Your task to perform on an android device: open app "Firefox Browser" Image 0: 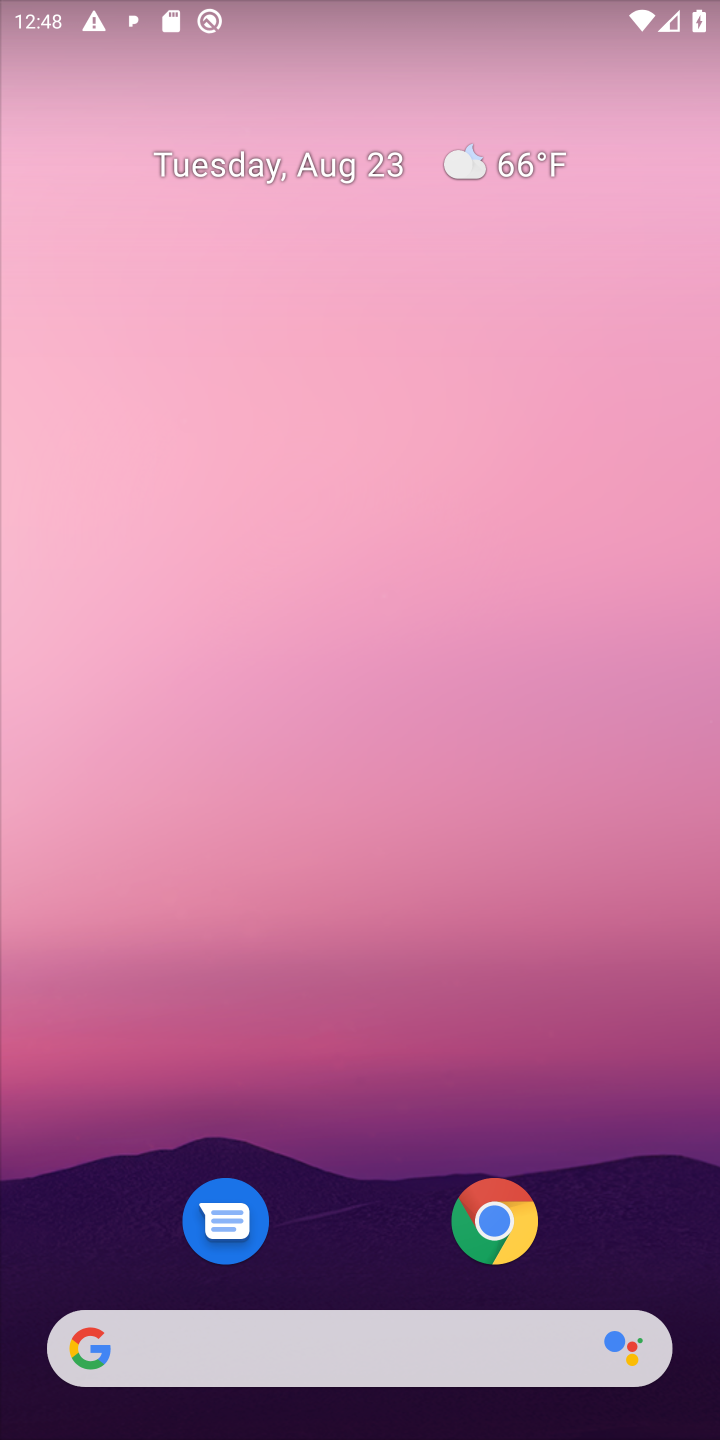
Step 0: drag from (324, 1255) to (525, 122)
Your task to perform on an android device: open app "Firefox Browser" Image 1: 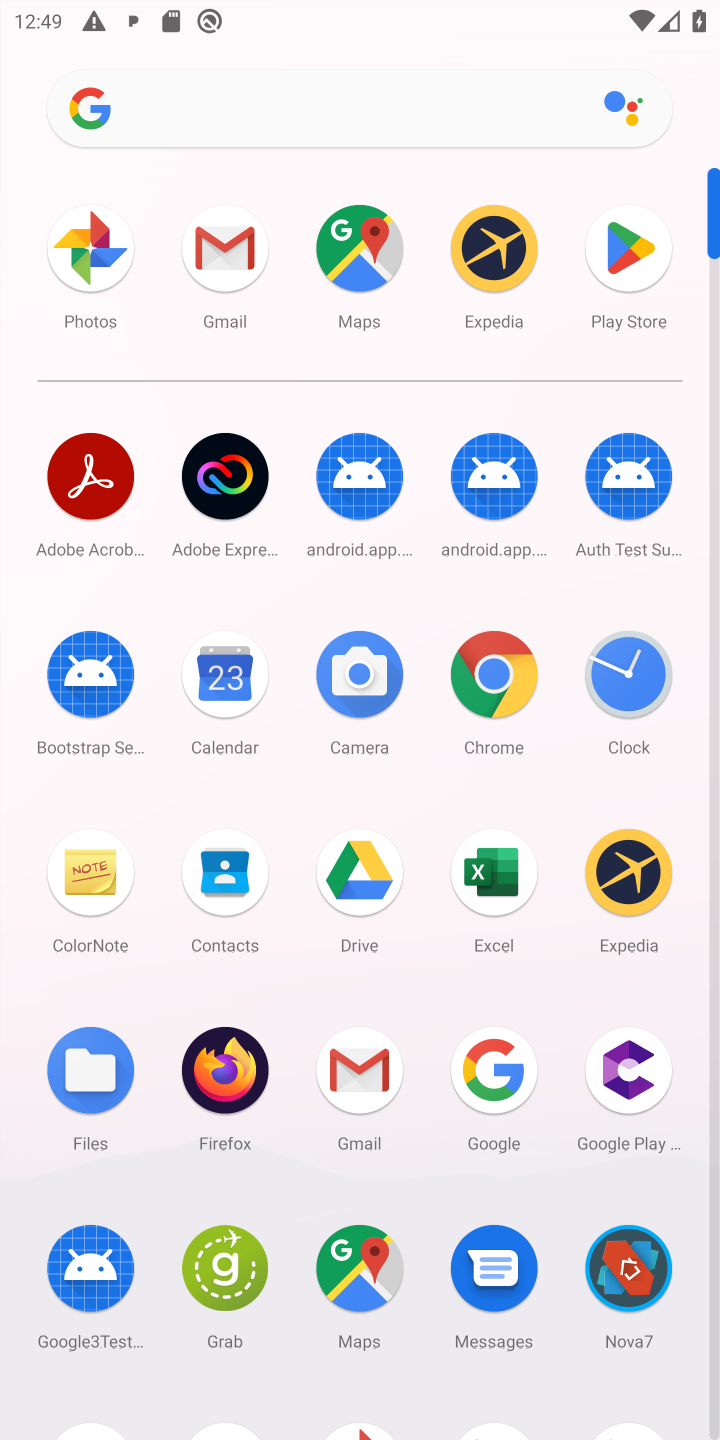
Step 1: click (650, 245)
Your task to perform on an android device: open app "Firefox Browser" Image 2: 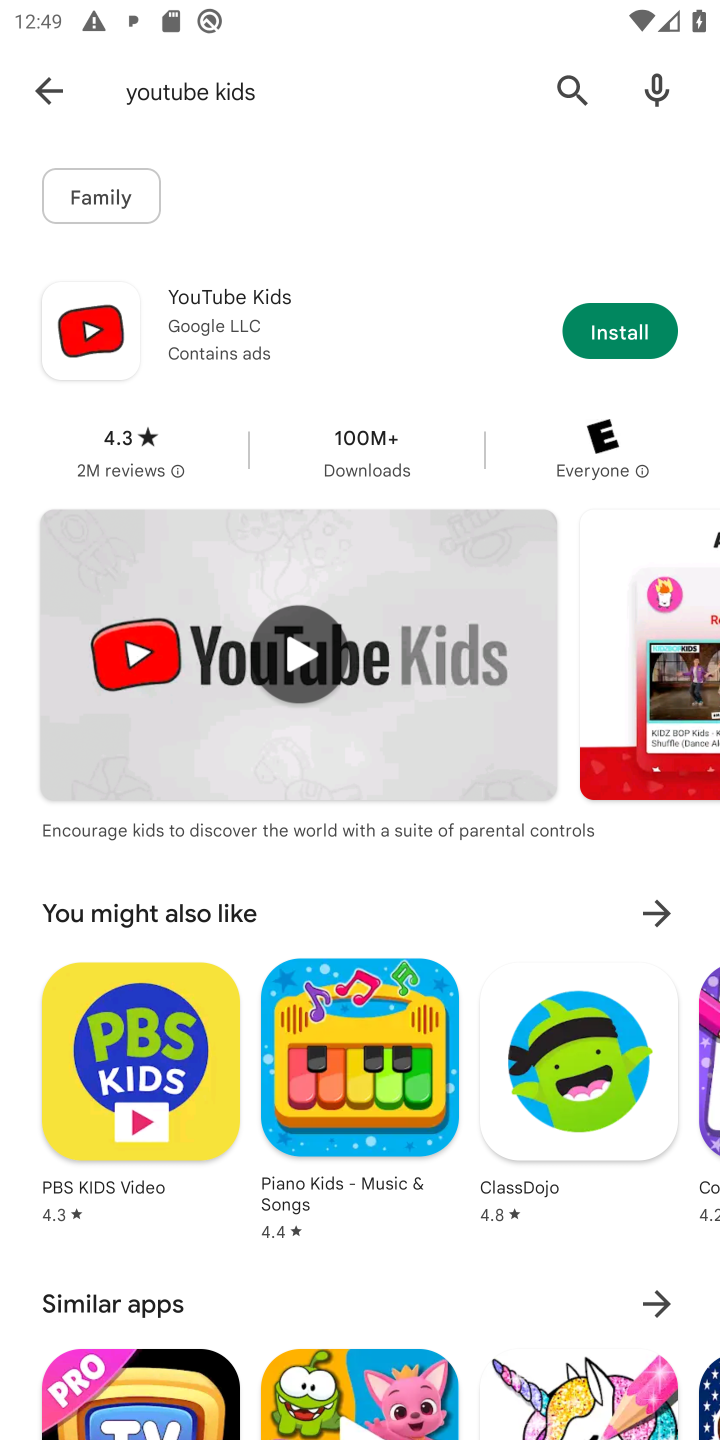
Step 2: click (554, 73)
Your task to perform on an android device: open app "Firefox Browser" Image 3: 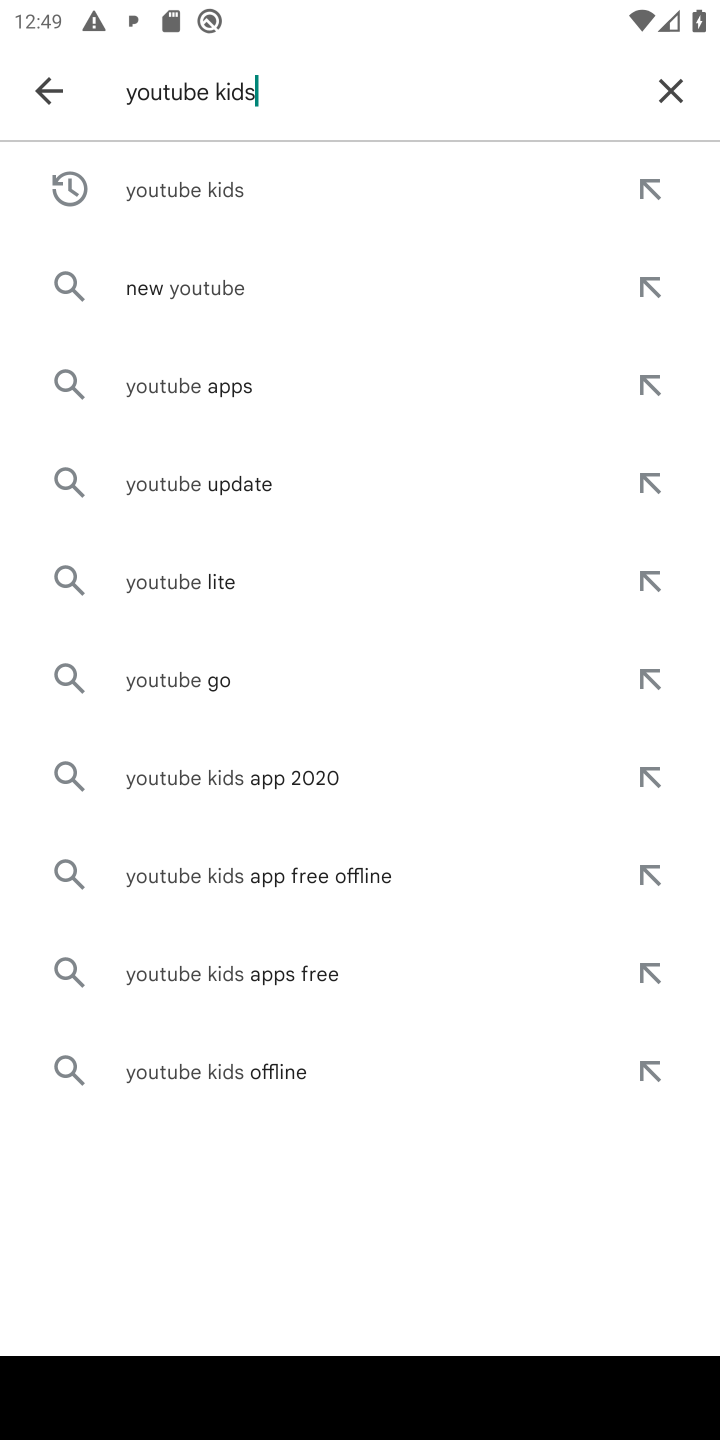
Step 3: click (670, 80)
Your task to perform on an android device: open app "Firefox Browser" Image 4: 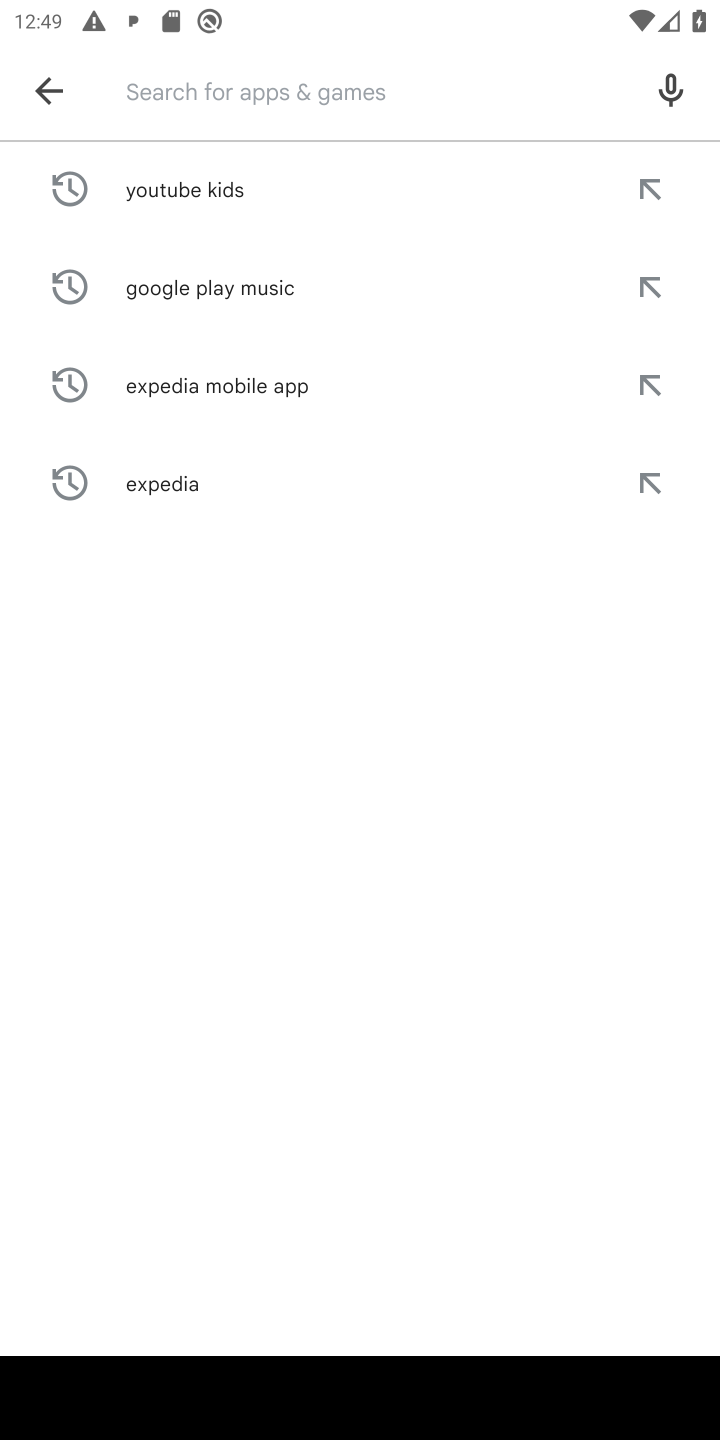
Step 4: click (233, 87)
Your task to perform on an android device: open app "Firefox Browser" Image 5: 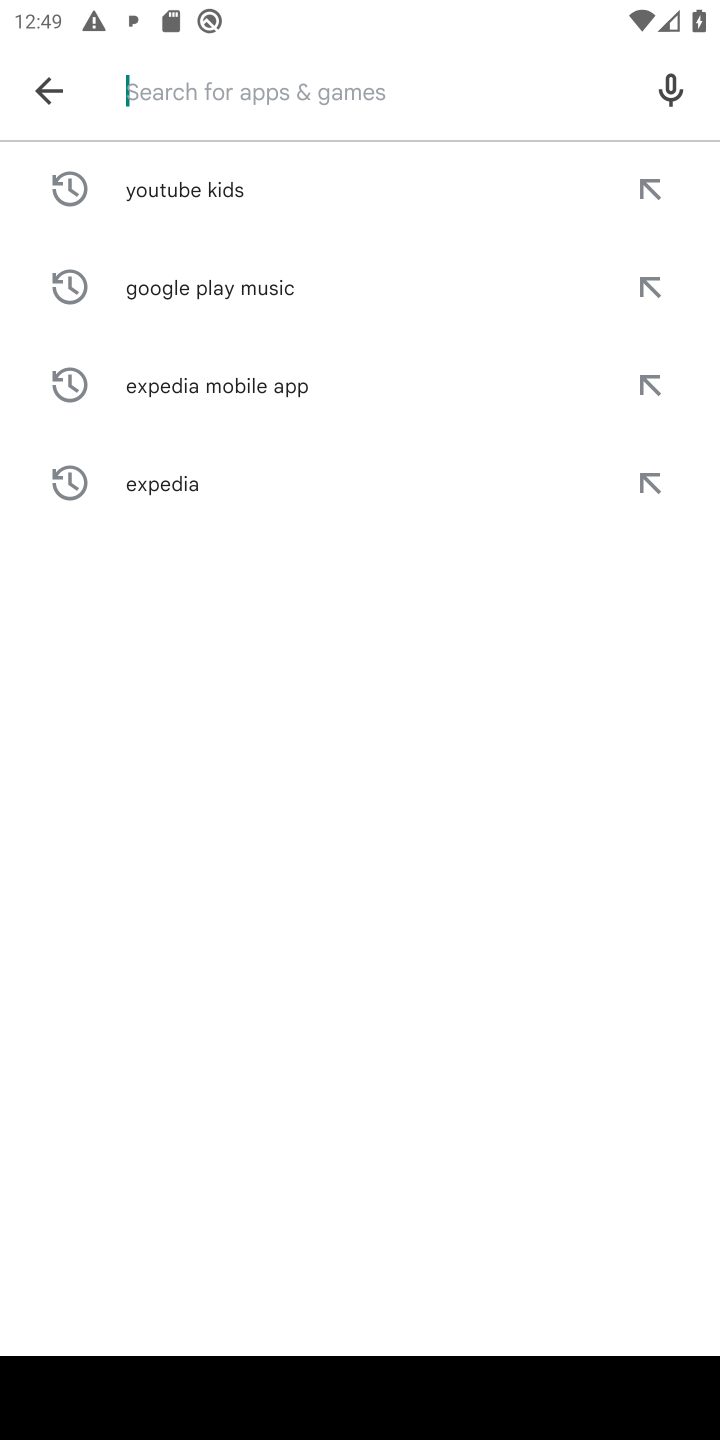
Step 5: type "Firefox Browser"
Your task to perform on an android device: open app "Firefox Browser" Image 6: 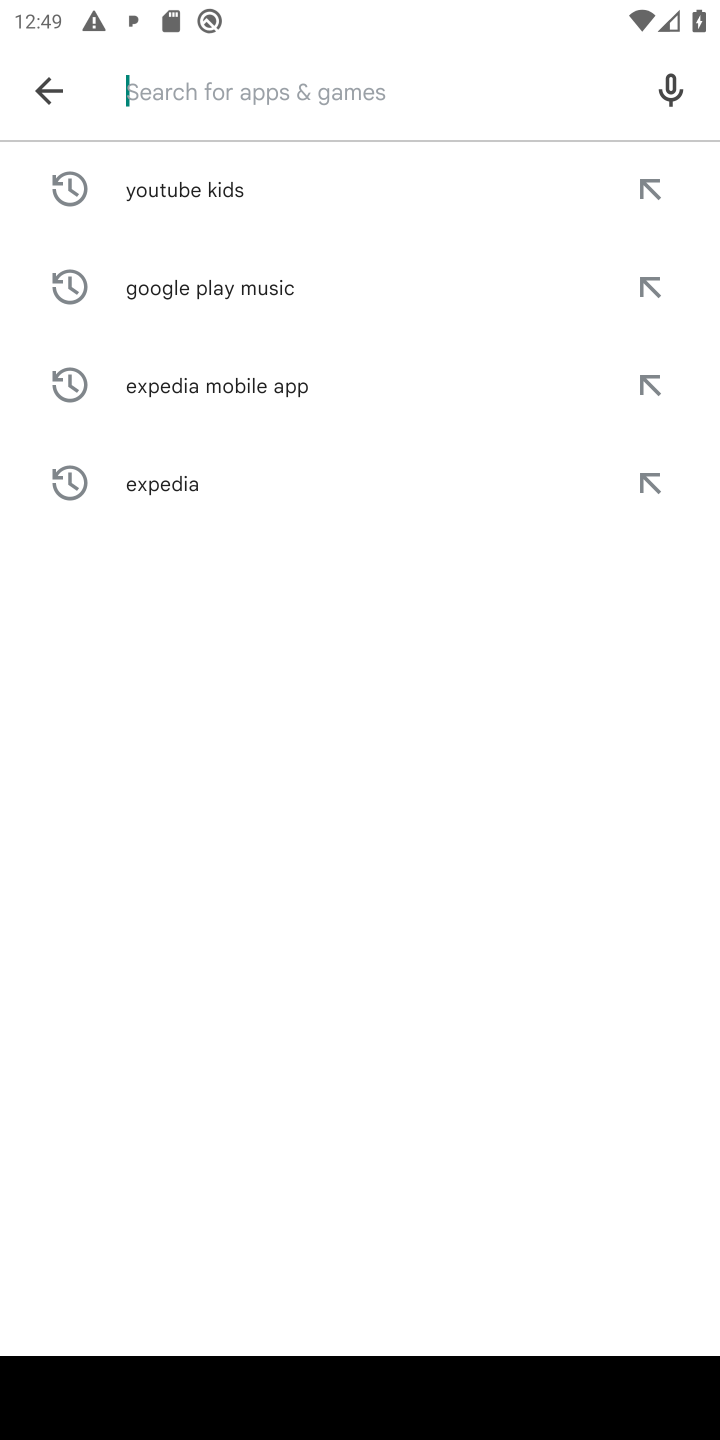
Step 6: click (417, 984)
Your task to perform on an android device: open app "Firefox Browser" Image 7: 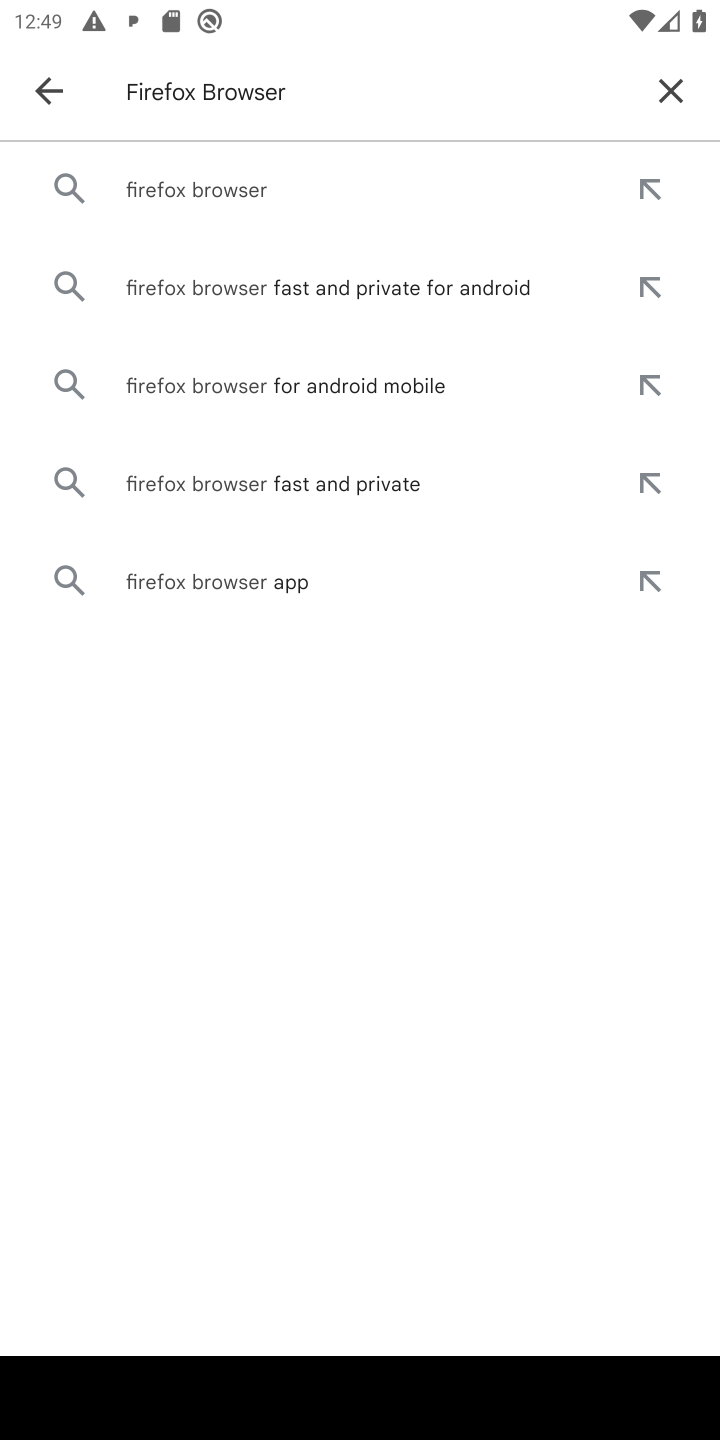
Step 7: click (250, 189)
Your task to perform on an android device: open app "Firefox Browser" Image 8: 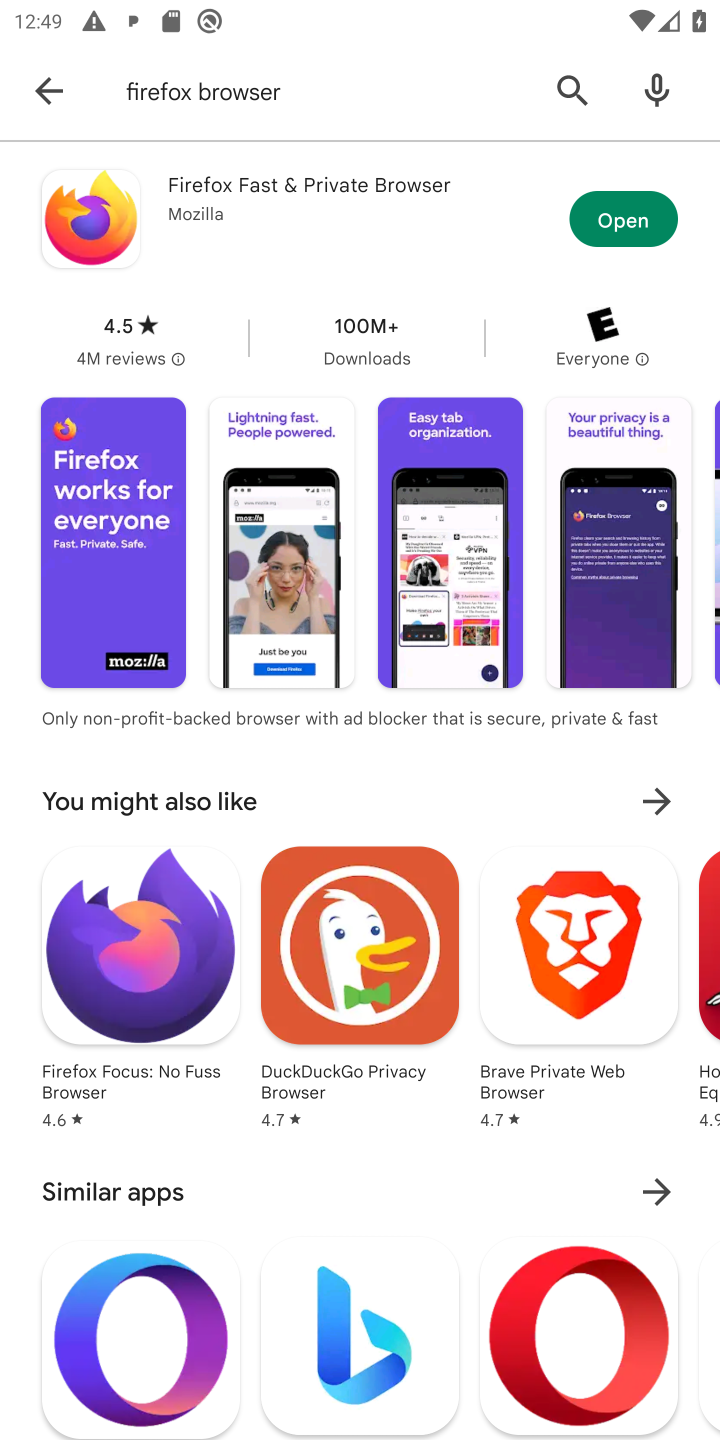
Step 8: click (593, 218)
Your task to perform on an android device: open app "Firefox Browser" Image 9: 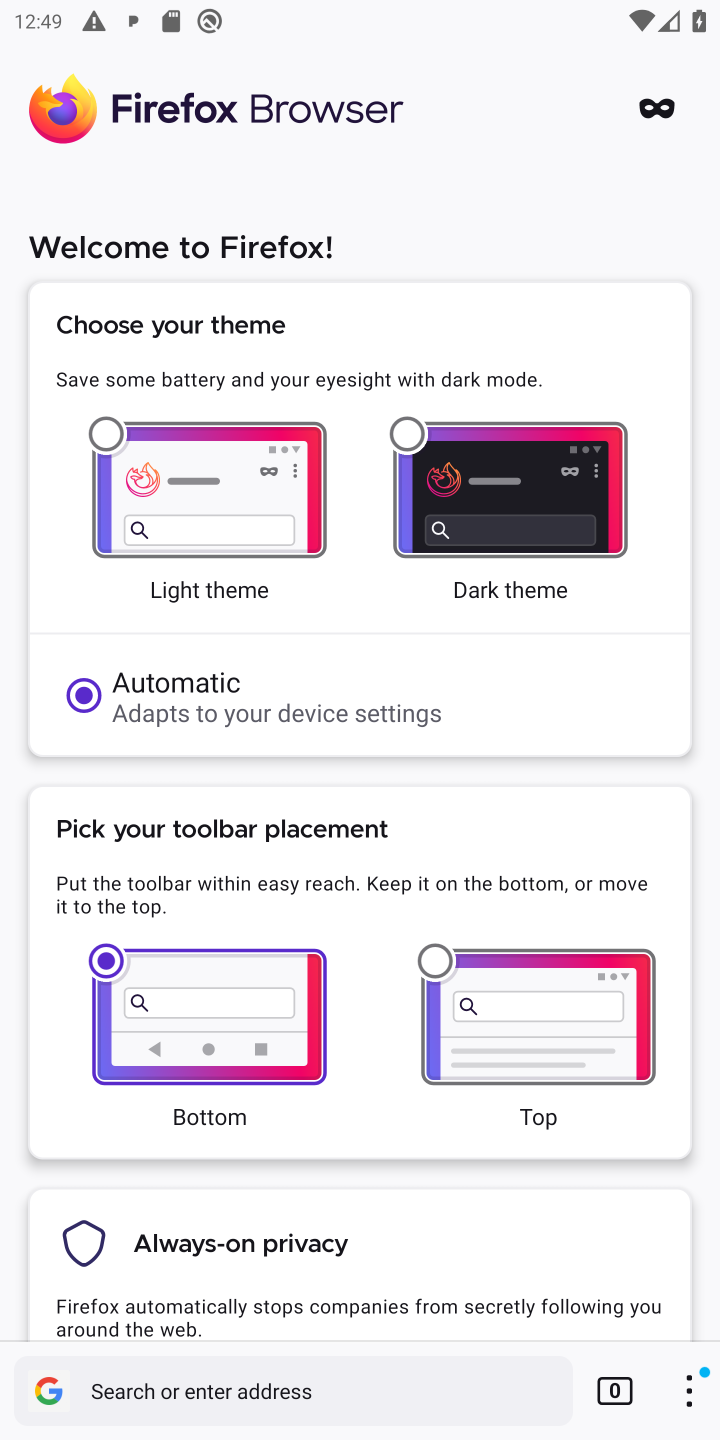
Step 9: task complete